Your task to perform on an android device: Show me productivity apps on the Play Store Image 0: 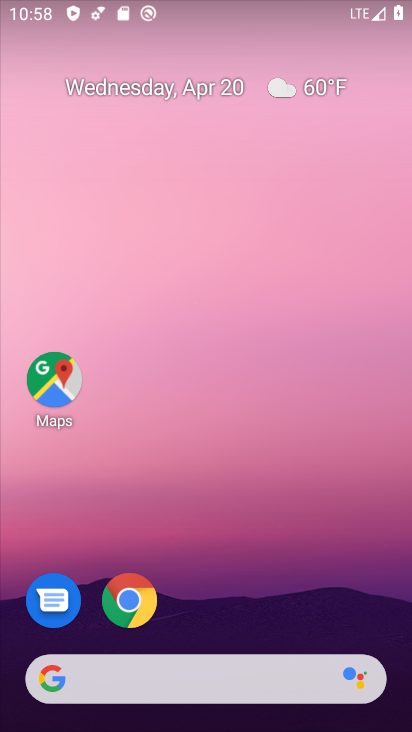
Step 0: drag from (300, 627) to (226, 58)
Your task to perform on an android device: Show me productivity apps on the Play Store Image 1: 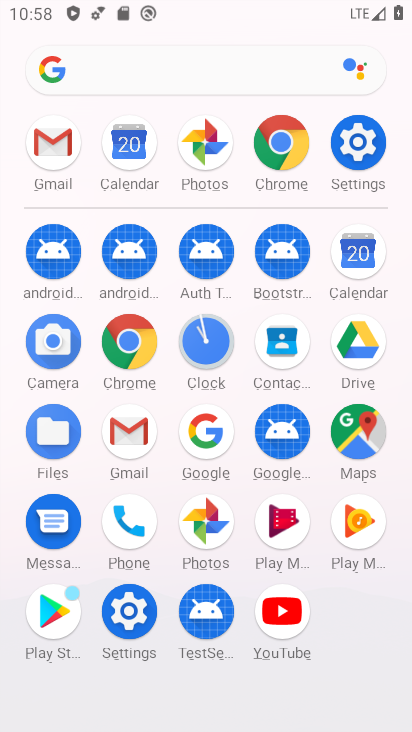
Step 1: click (60, 619)
Your task to perform on an android device: Show me productivity apps on the Play Store Image 2: 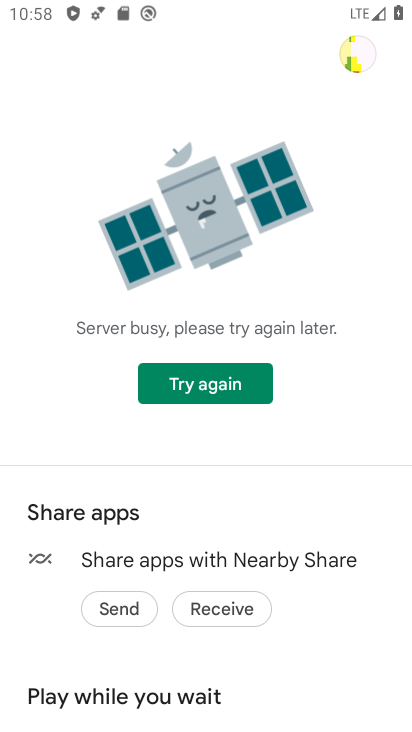
Step 2: task complete